Your task to perform on an android device: read, delete, or share a saved page in the chrome app Image 0: 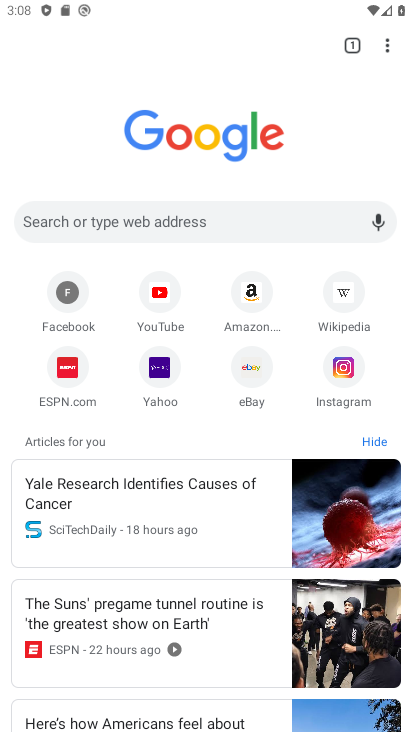
Step 0: click (386, 42)
Your task to perform on an android device: read, delete, or share a saved page in the chrome app Image 1: 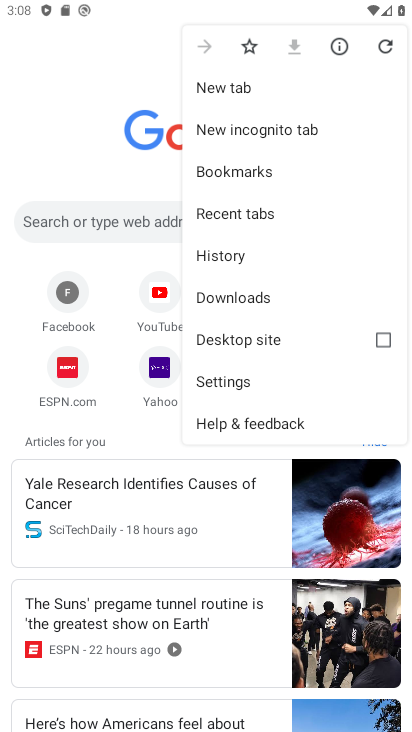
Step 1: click (250, 288)
Your task to perform on an android device: read, delete, or share a saved page in the chrome app Image 2: 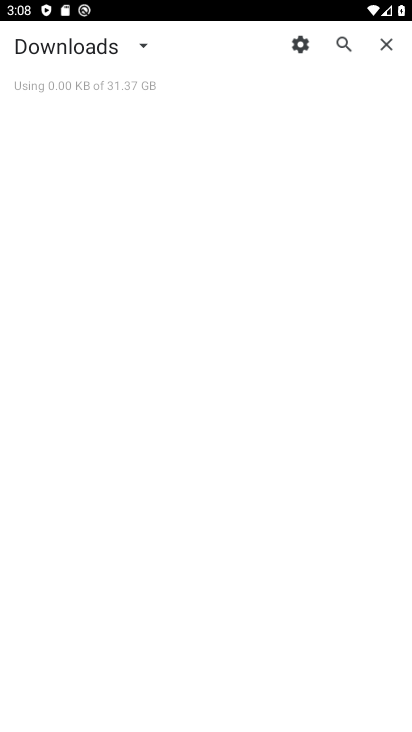
Step 2: task complete